Your task to perform on an android device: Open calendar and show me the first week of next month Image 0: 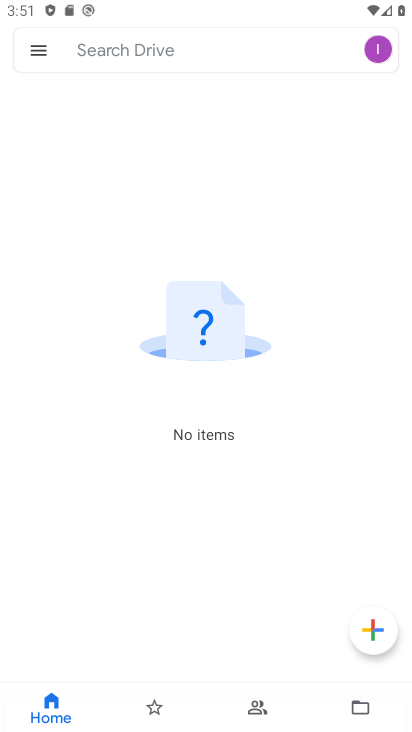
Step 0: press home button
Your task to perform on an android device: Open calendar and show me the first week of next month Image 1: 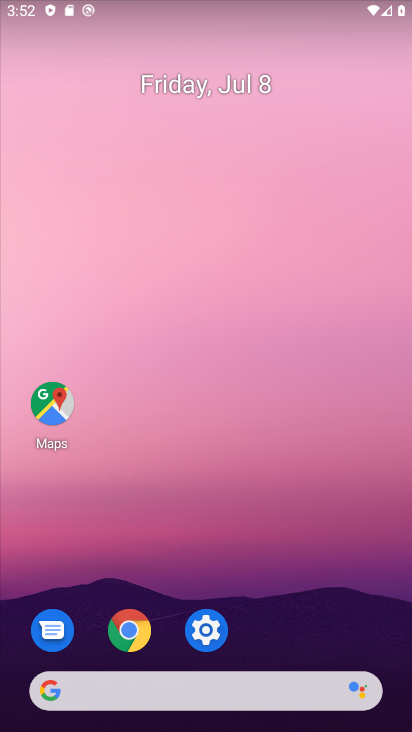
Step 1: click (227, 212)
Your task to perform on an android device: Open calendar and show me the first week of next month Image 2: 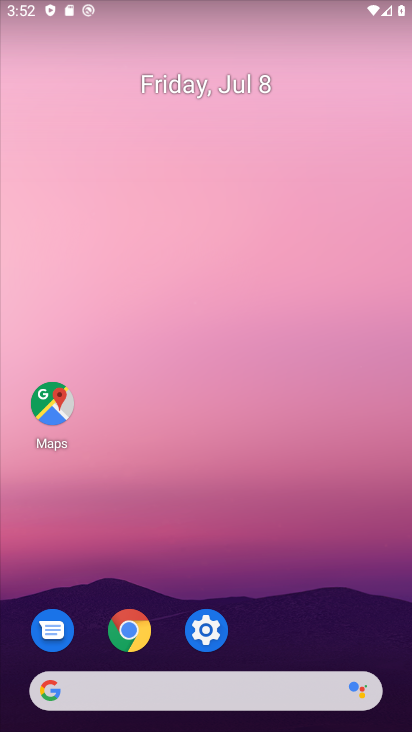
Step 2: drag from (7, 688) to (240, 79)
Your task to perform on an android device: Open calendar and show me the first week of next month Image 3: 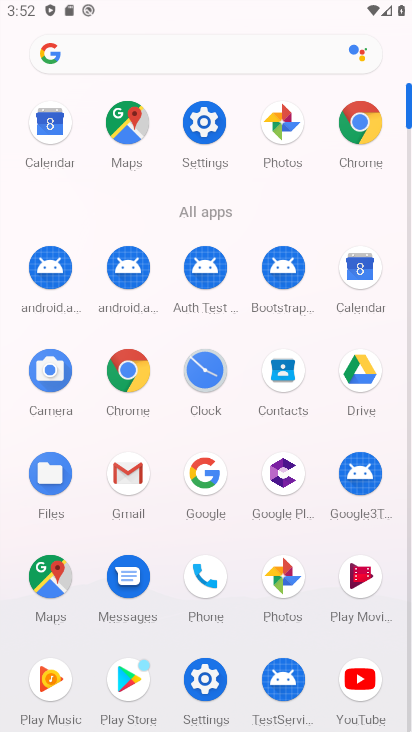
Step 3: click (365, 283)
Your task to perform on an android device: Open calendar and show me the first week of next month Image 4: 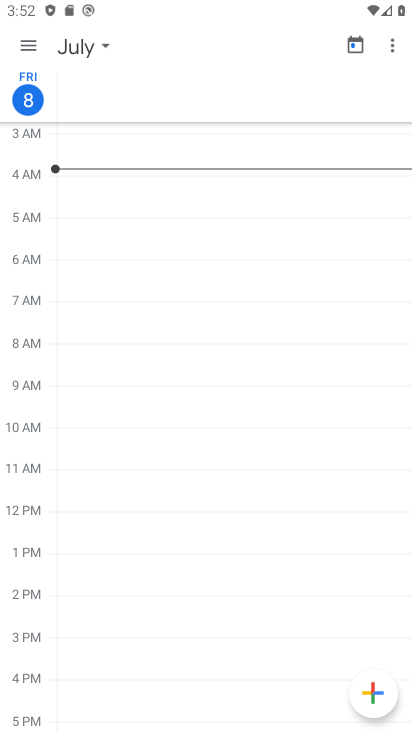
Step 4: click (19, 37)
Your task to perform on an android device: Open calendar and show me the first week of next month Image 5: 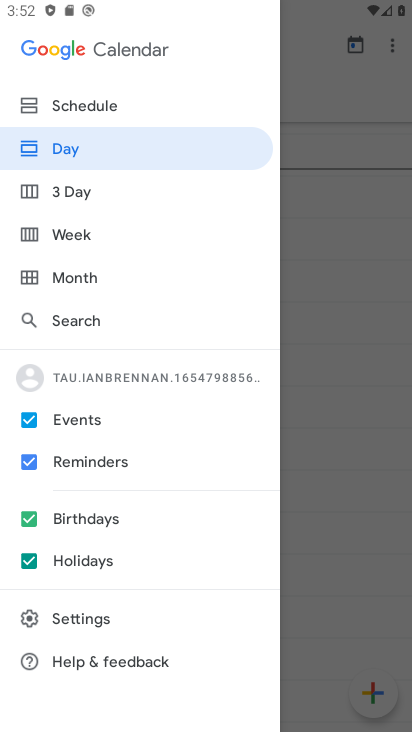
Step 5: click (316, 86)
Your task to perform on an android device: Open calendar and show me the first week of next month Image 6: 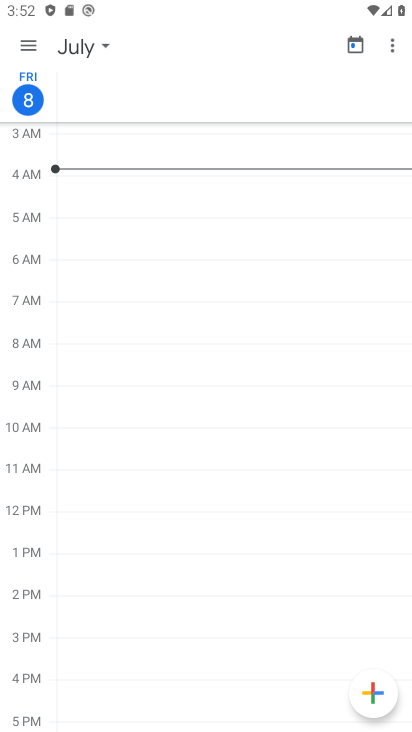
Step 6: click (80, 39)
Your task to perform on an android device: Open calendar and show me the first week of next month Image 7: 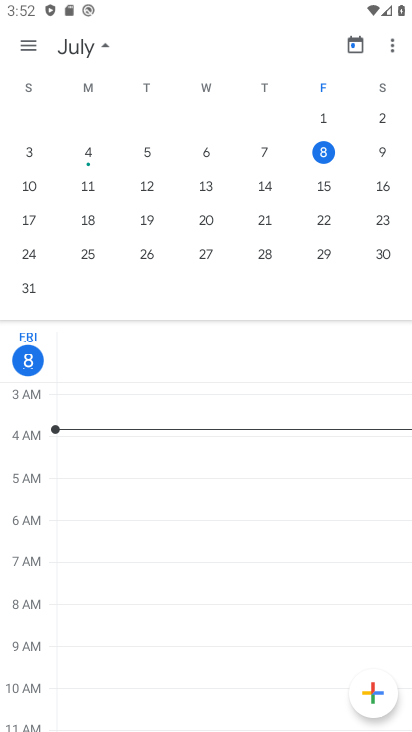
Step 7: drag from (279, 152) to (1, 129)
Your task to perform on an android device: Open calendar and show me the first week of next month Image 8: 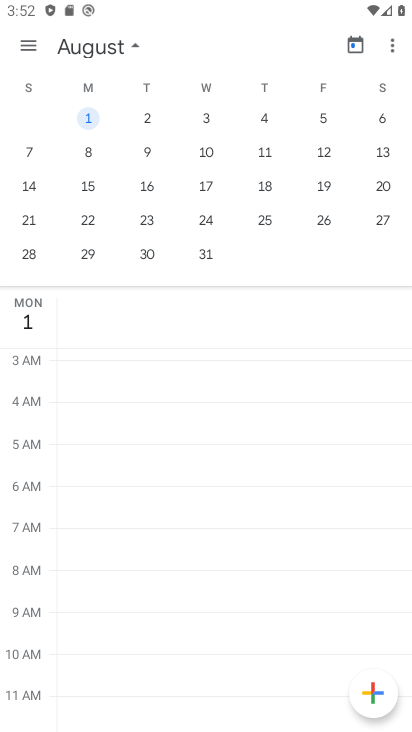
Step 8: click (92, 117)
Your task to perform on an android device: Open calendar and show me the first week of next month Image 9: 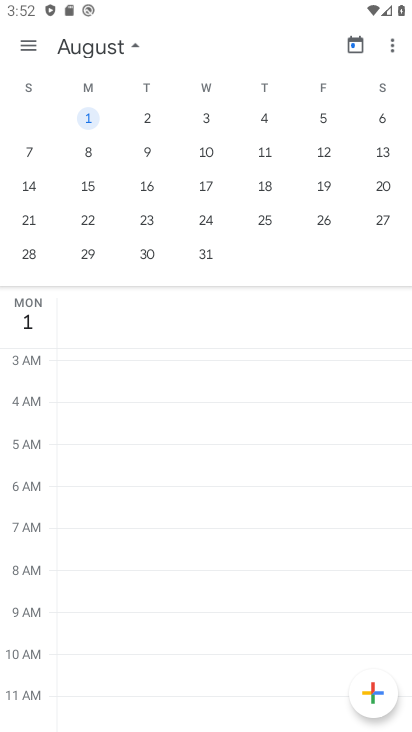
Step 9: task complete